Your task to perform on an android device: toggle improve location accuracy Image 0: 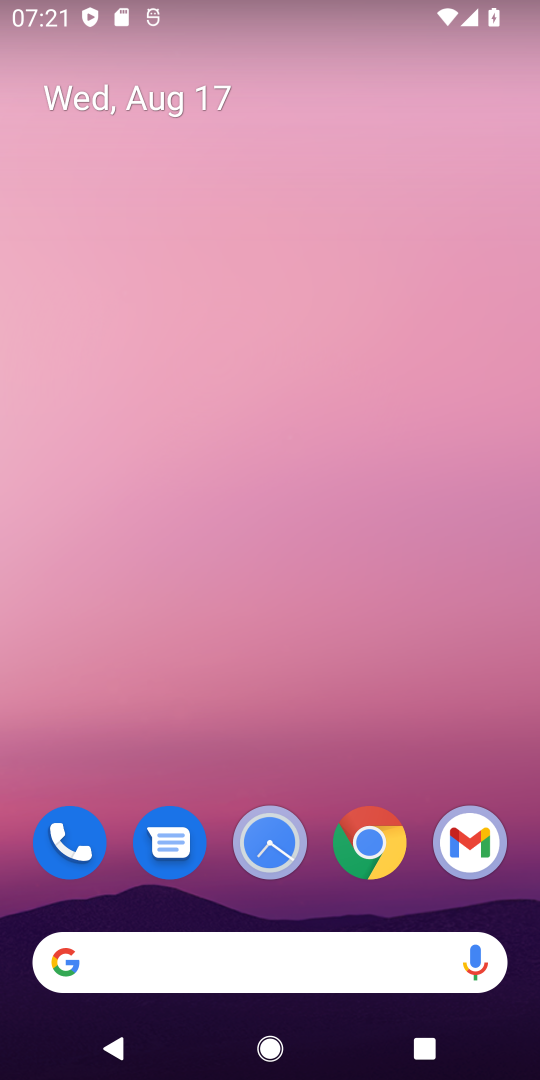
Step 0: drag from (259, 745) to (292, 0)
Your task to perform on an android device: toggle improve location accuracy Image 1: 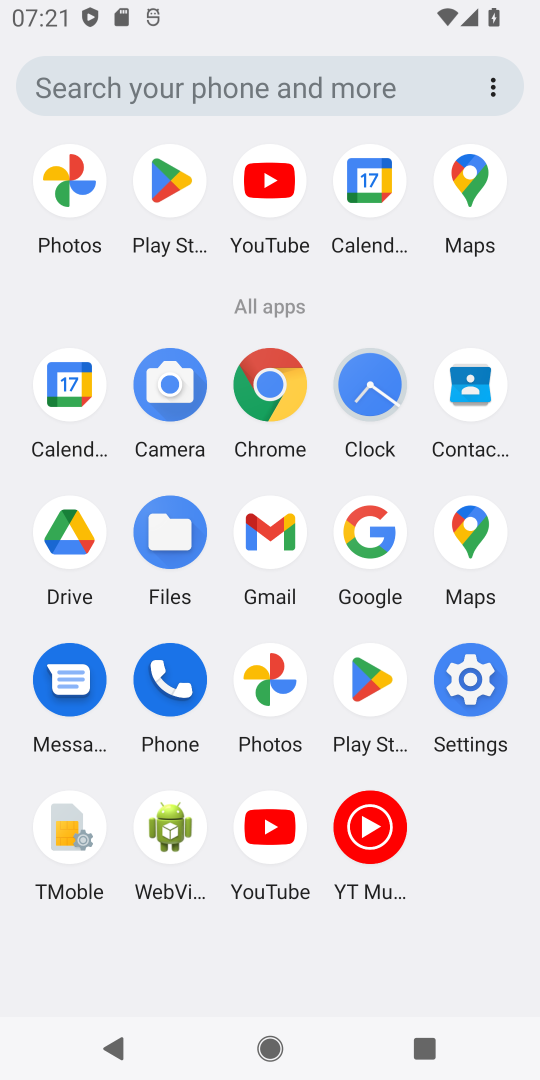
Step 1: click (476, 680)
Your task to perform on an android device: toggle improve location accuracy Image 2: 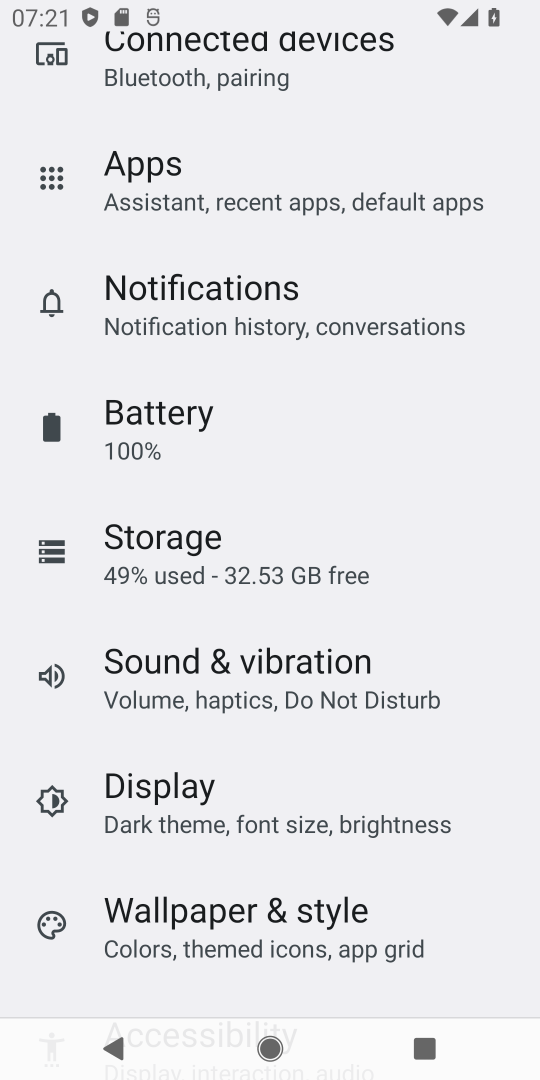
Step 2: drag from (300, 730) to (289, 140)
Your task to perform on an android device: toggle improve location accuracy Image 3: 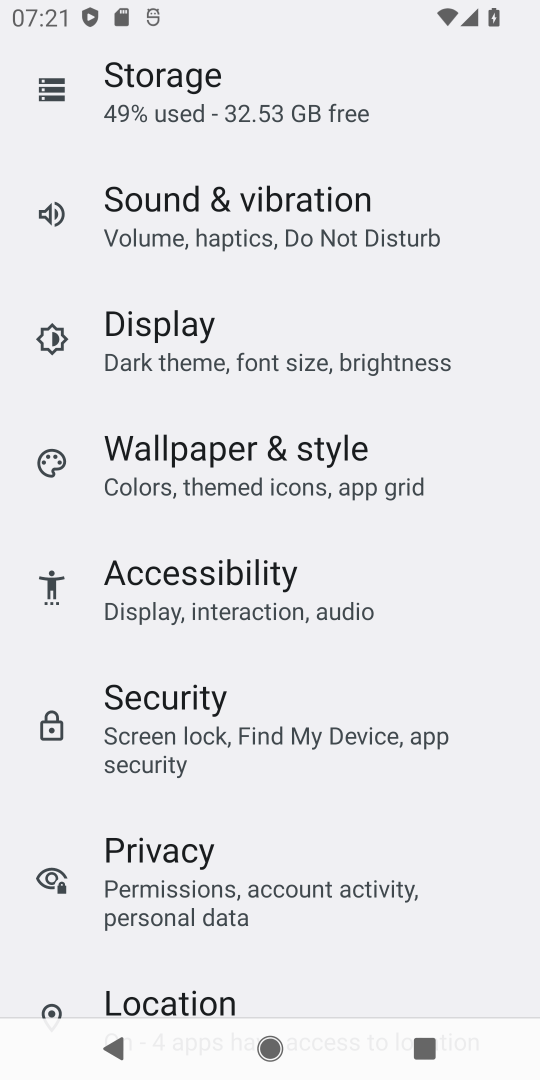
Step 3: drag from (254, 876) to (273, 431)
Your task to perform on an android device: toggle improve location accuracy Image 4: 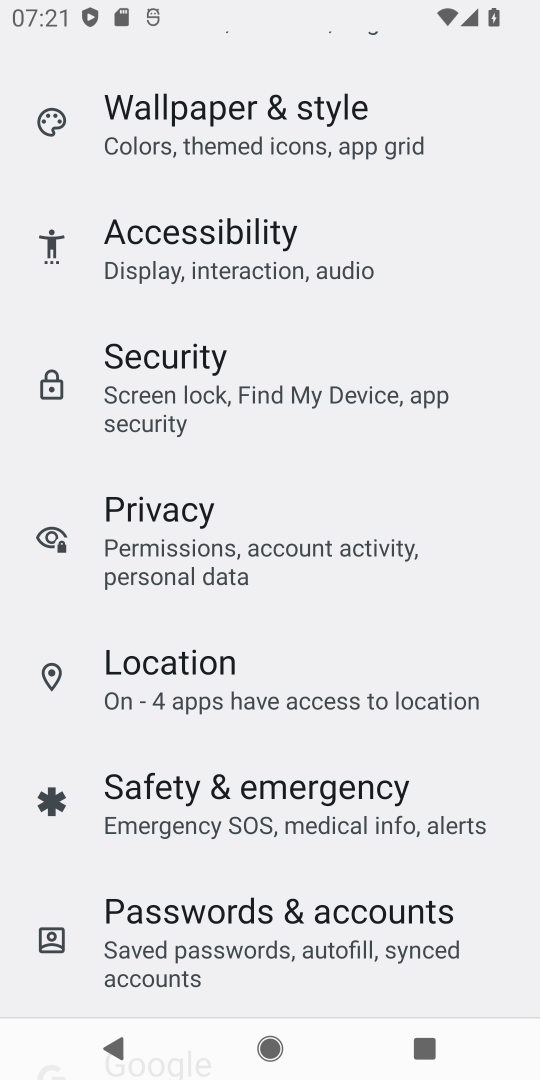
Step 4: click (259, 674)
Your task to perform on an android device: toggle improve location accuracy Image 5: 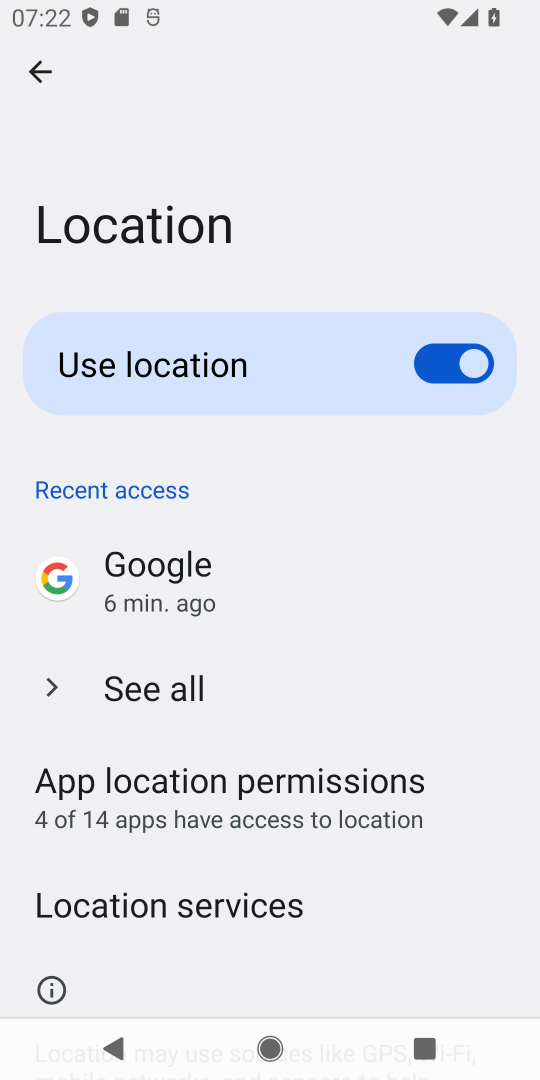
Step 5: click (269, 899)
Your task to perform on an android device: toggle improve location accuracy Image 6: 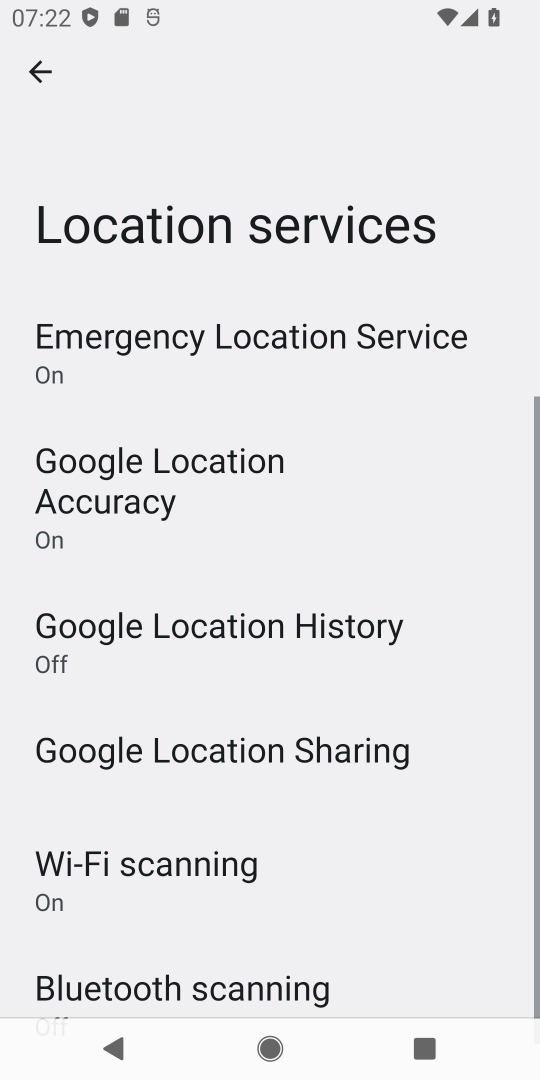
Step 6: drag from (297, 671) to (322, 275)
Your task to perform on an android device: toggle improve location accuracy Image 7: 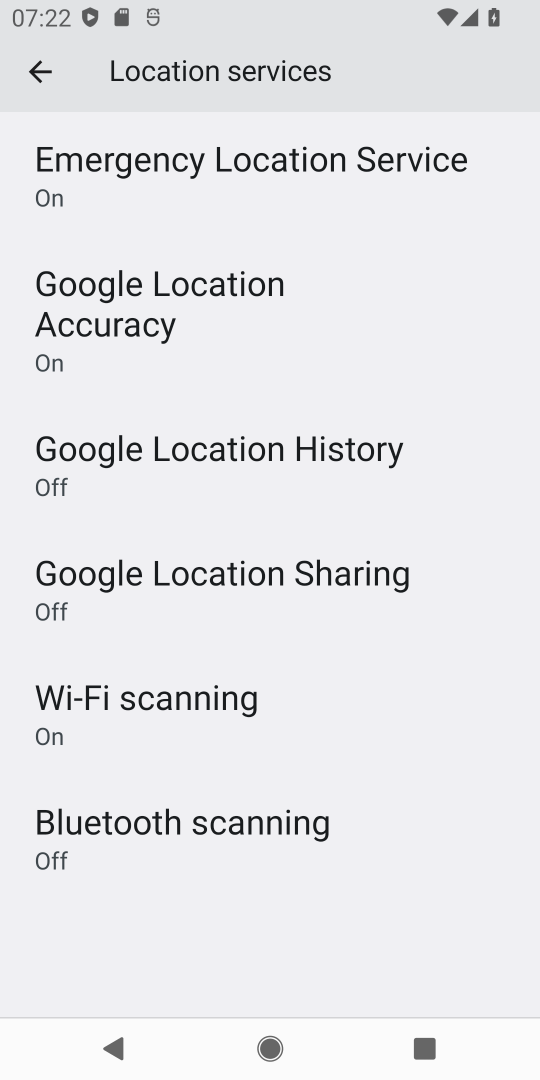
Step 7: click (212, 317)
Your task to perform on an android device: toggle improve location accuracy Image 8: 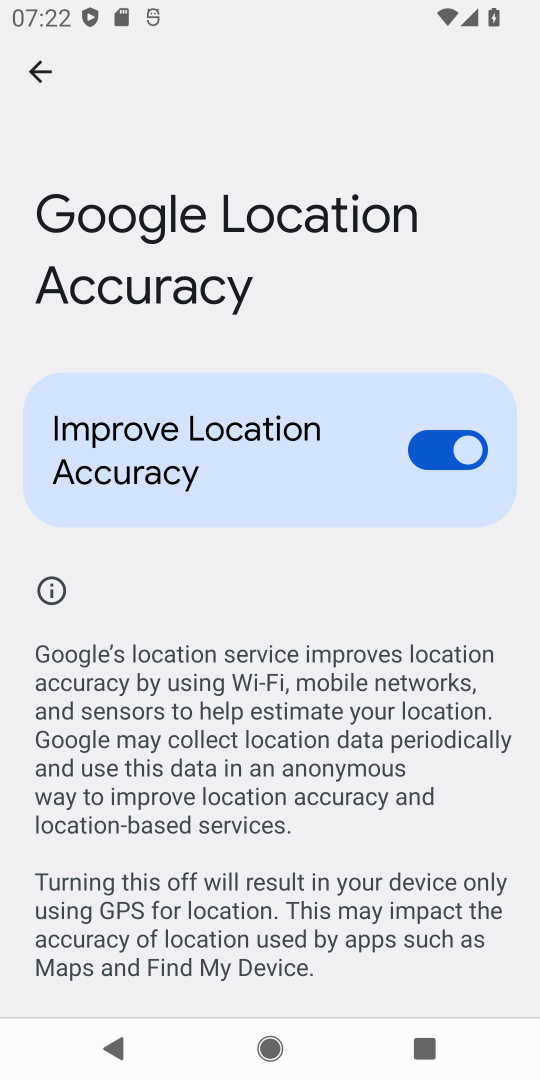
Step 8: click (441, 449)
Your task to perform on an android device: toggle improve location accuracy Image 9: 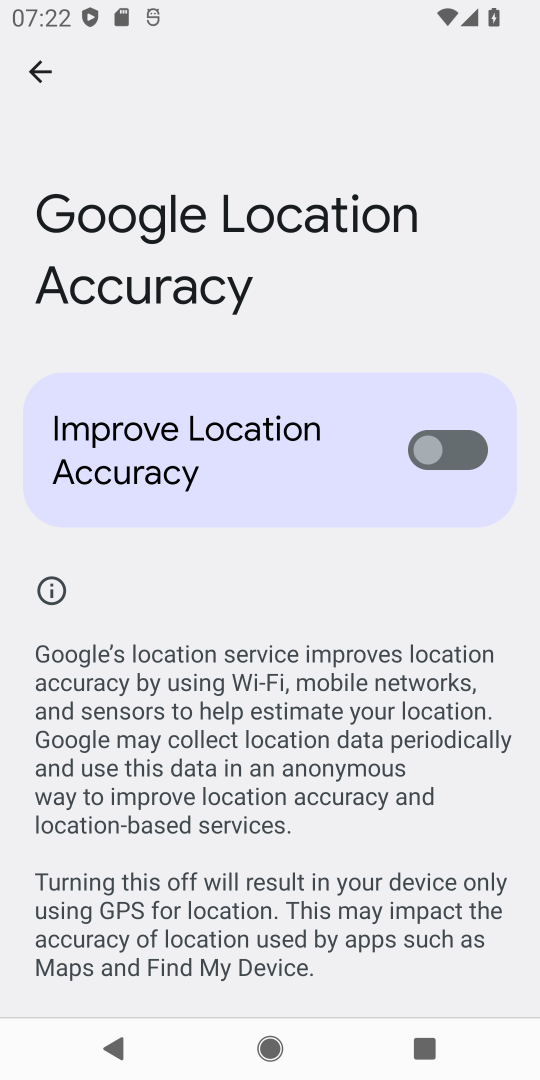
Step 9: task complete